Your task to perform on an android device: toggle airplane mode Image 0: 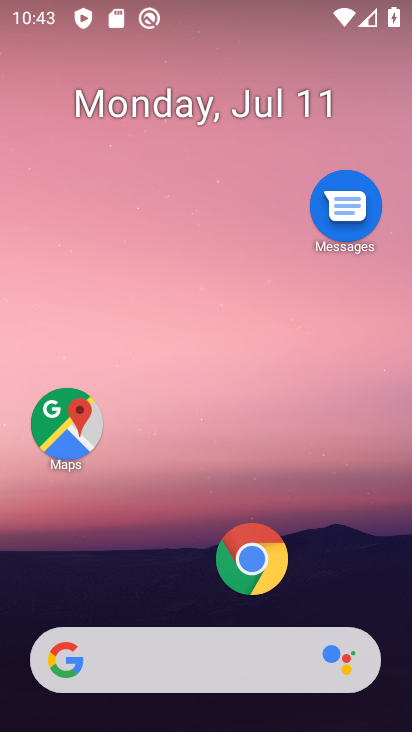
Step 0: drag from (333, 600) to (326, 149)
Your task to perform on an android device: toggle airplane mode Image 1: 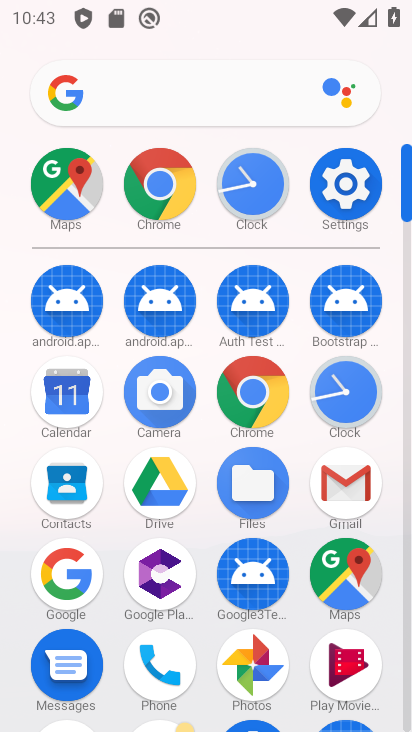
Step 1: click (339, 190)
Your task to perform on an android device: toggle airplane mode Image 2: 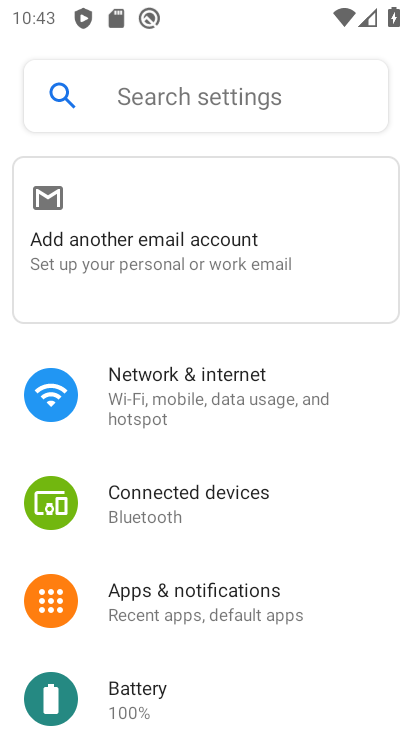
Step 2: click (230, 399)
Your task to perform on an android device: toggle airplane mode Image 3: 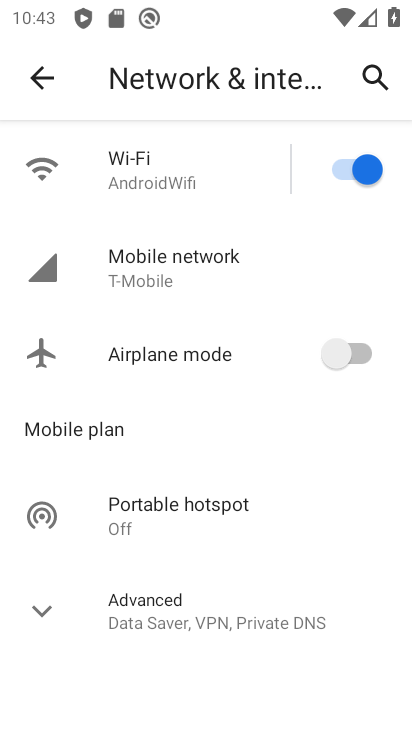
Step 3: click (332, 358)
Your task to perform on an android device: toggle airplane mode Image 4: 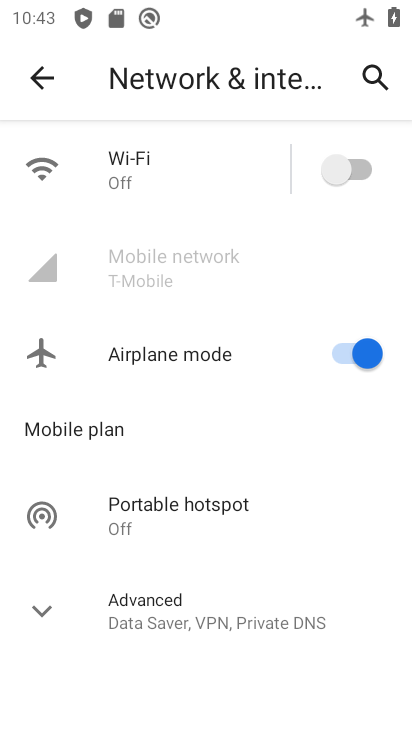
Step 4: task complete